Your task to perform on an android device: turn off javascript in the chrome app Image 0: 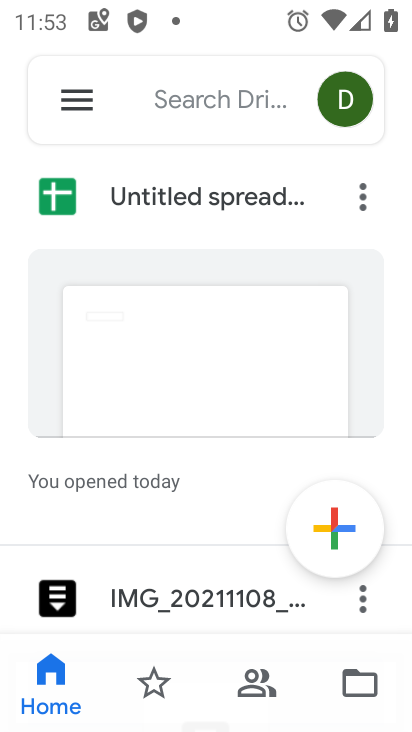
Step 0: press home button
Your task to perform on an android device: turn off javascript in the chrome app Image 1: 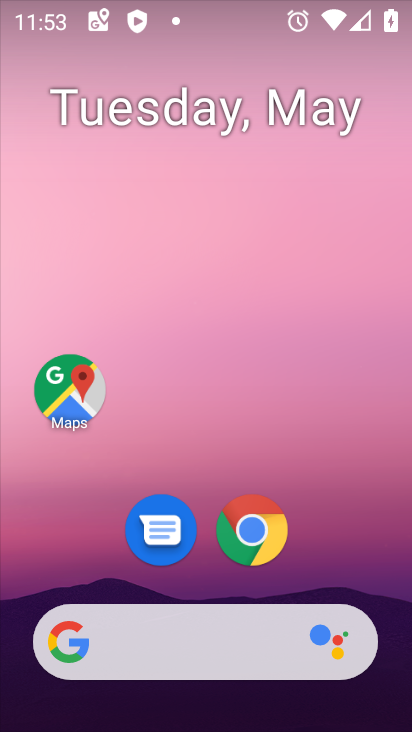
Step 1: click (244, 530)
Your task to perform on an android device: turn off javascript in the chrome app Image 2: 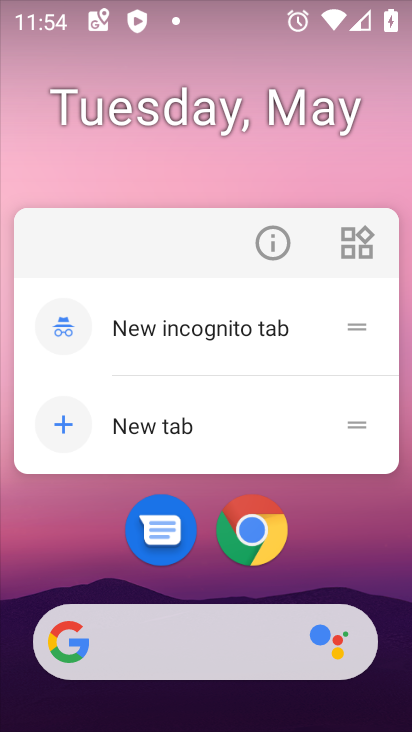
Step 2: click (279, 244)
Your task to perform on an android device: turn off javascript in the chrome app Image 3: 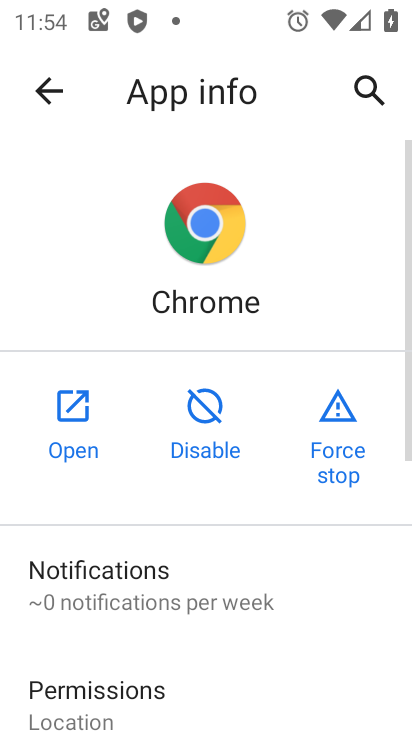
Step 3: click (77, 433)
Your task to perform on an android device: turn off javascript in the chrome app Image 4: 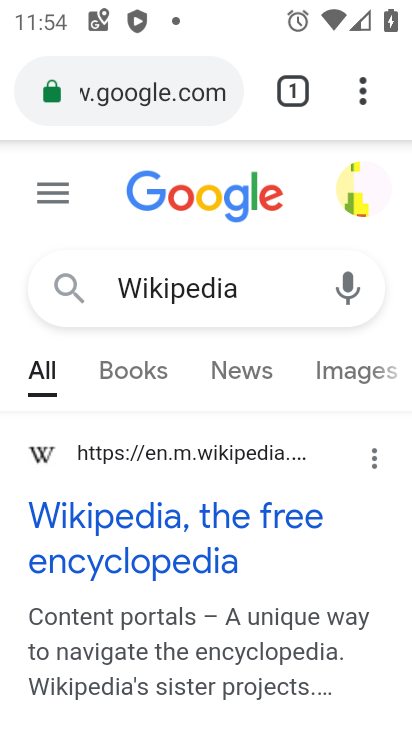
Step 4: click (364, 90)
Your task to perform on an android device: turn off javascript in the chrome app Image 5: 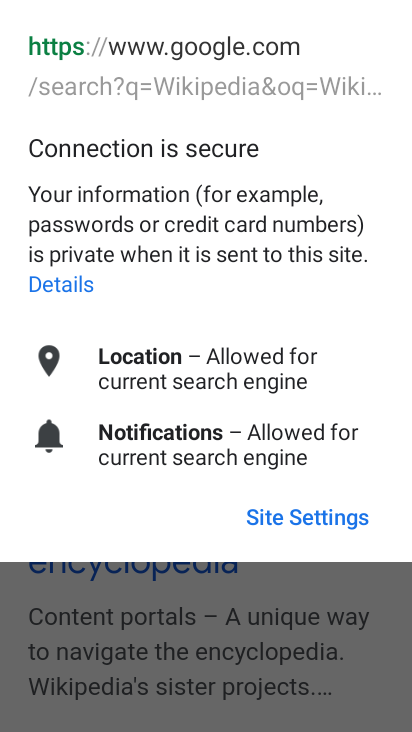
Step 5: click (291, 523)
Your task to perform on an android device: turn off javascript in the chrome app Image 6: 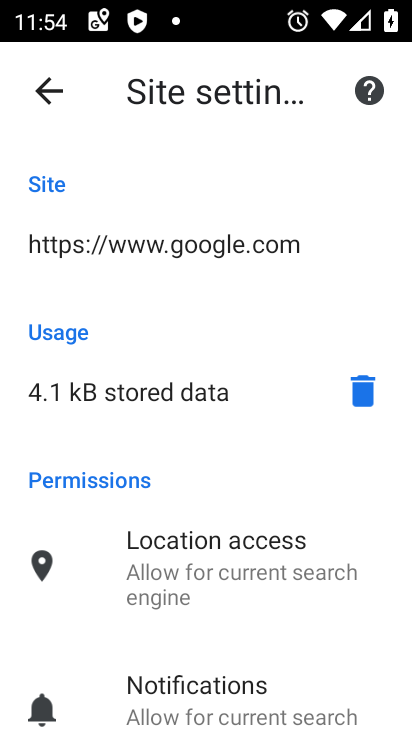
Step 6: drag from (235, 609) to (320, 224)
Your task to perform on an android device: turn off javascript in the chrome app Image 7: 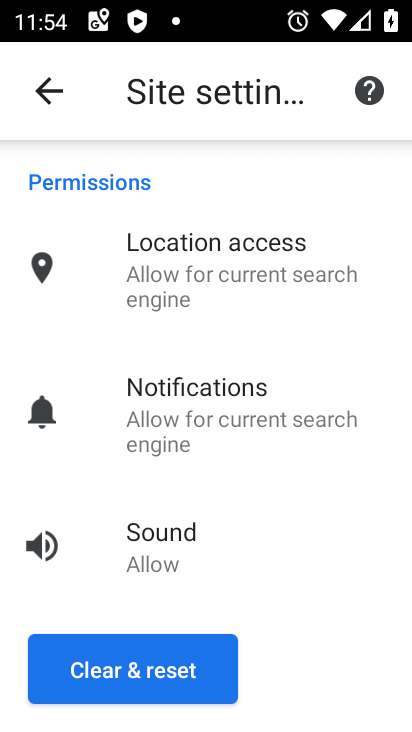
Step 7: click (41, 104)
Your task to perform on an android device: turn off javascript in the chrome app Image 8: 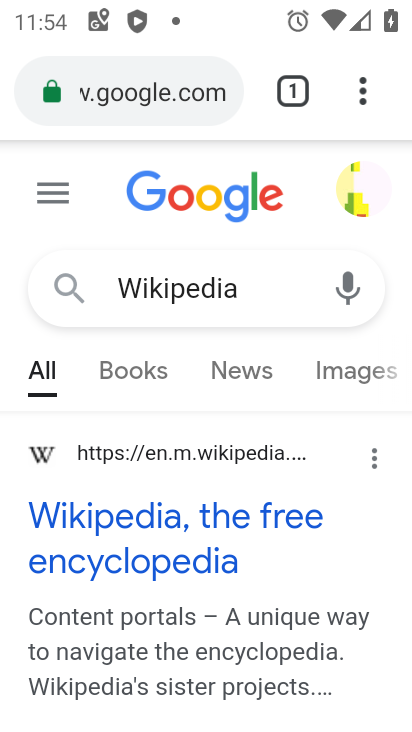
Step 8: click (361, 96)
Your task to perform on an android device: turn off javascript in the chrome app Image 9: 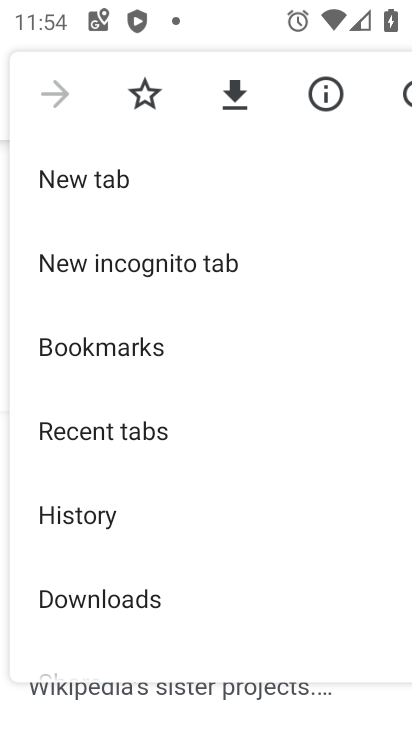
Step 9: drag from (88, 624) to (276, 262)
Your task to perform on an android device: turn off javascript in the chrome app Image 10: 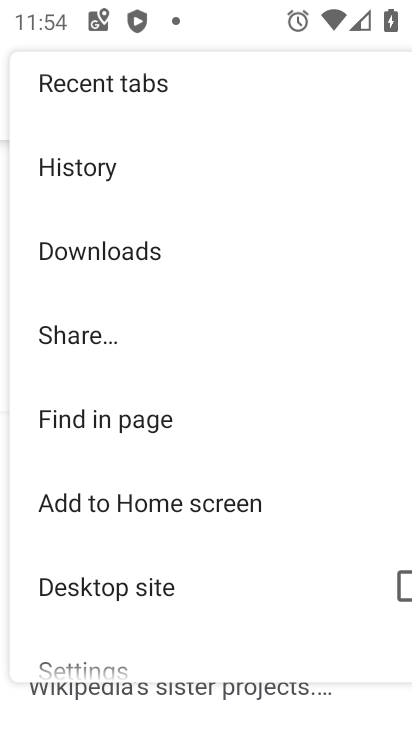
Step 10: drag from (109, 601) to (193, 384)
Your task to perform on an android device: turn off javascript in the chrome app Image 11: 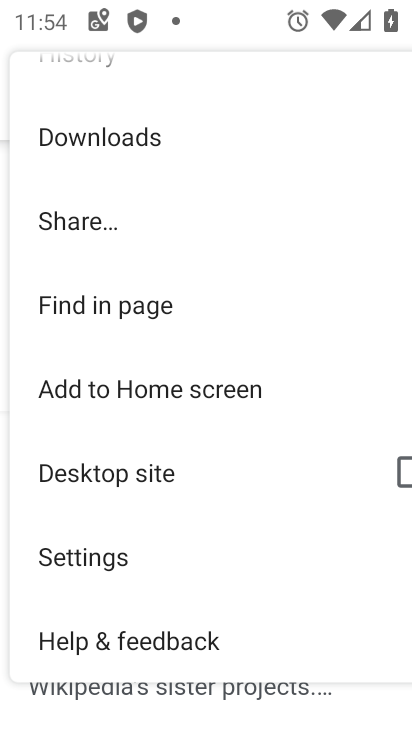
Step 11: click (94, 552)
Your task to perform on an android device: turn off javascript in the chrome app Image 12: 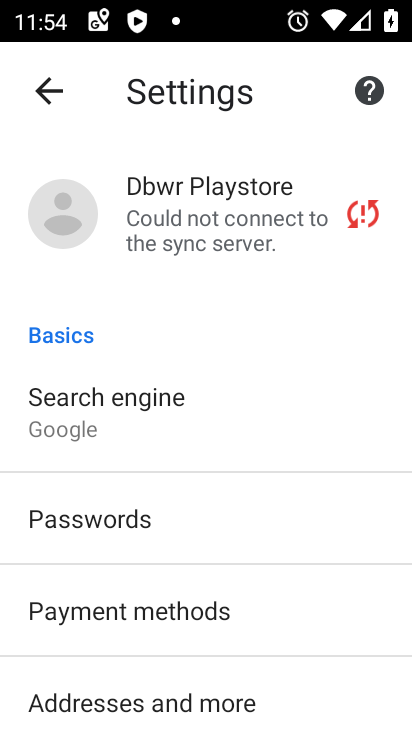
Step 12: drag from (130, 657) to (265, 262)
Your task to perform on an android device: turn off javascript in the chrome app Image 13: 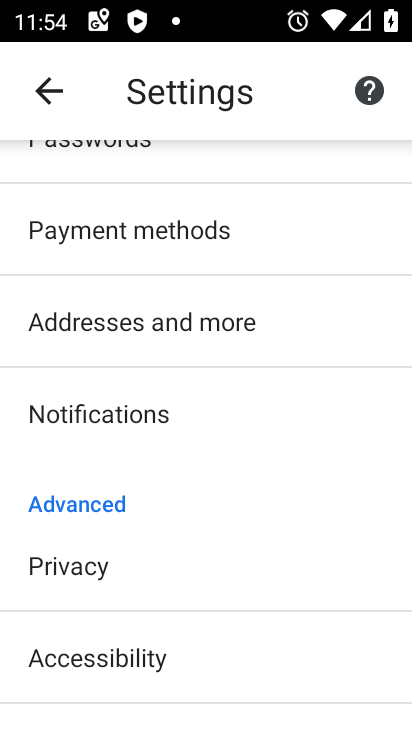
Step 13: drag from (121, 684) to (265, 317)
Your task to perform on an android device: turn off javascript in the chrome app Image 14: 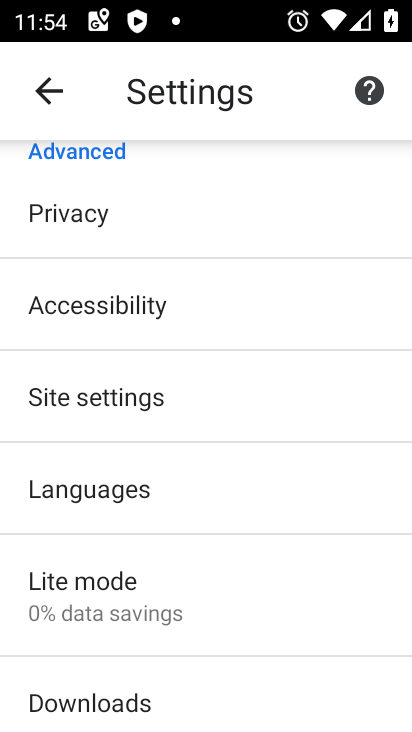
Step 14: click (110, 406)
Your task to perform on an android device: turn off javascript in the chrome app Image 15: 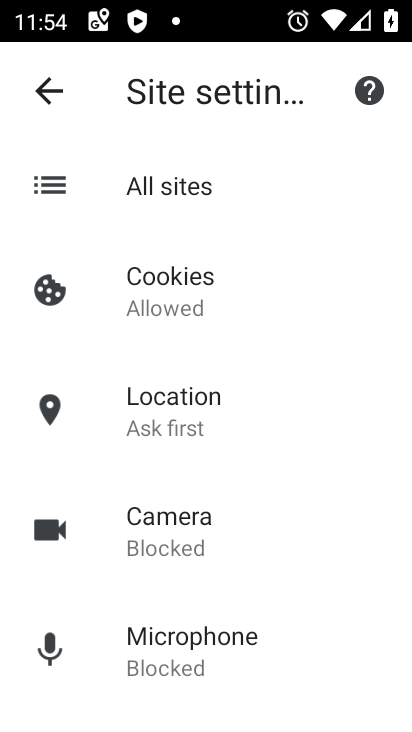
Step 15: drag from (214, 600) to (308, 351)
Your task to perform on an android device: turn off javascript in the chrome app Image 16: 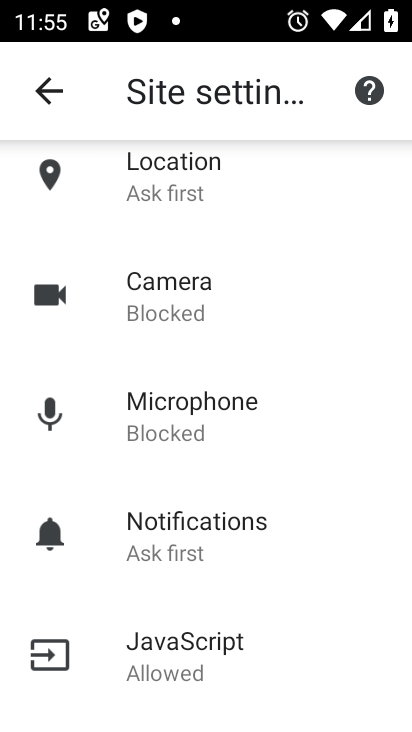
Step 16: click (191, 655)
Your task to perform on an android device: turn off javascript in the chrome app Image 17: 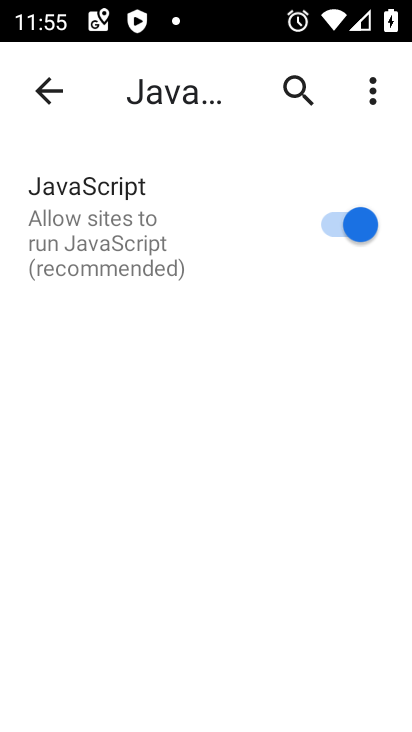
Step 17: click (330, 230)
Your task to perform on an android device: turn off javascript in the chrome app Image 18: 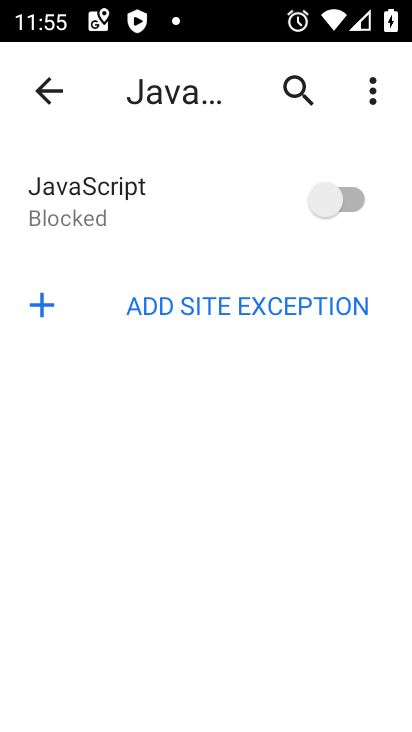
Step 18: task complete